Your task to perform on an android device: Open settings on Google Maps Image 0: 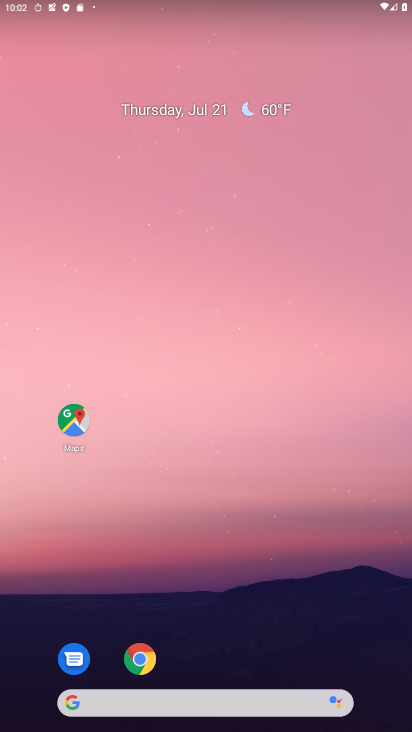
Step 0: press home button
Your task to perform on an android device: Open settings on Google Maps Image 1: 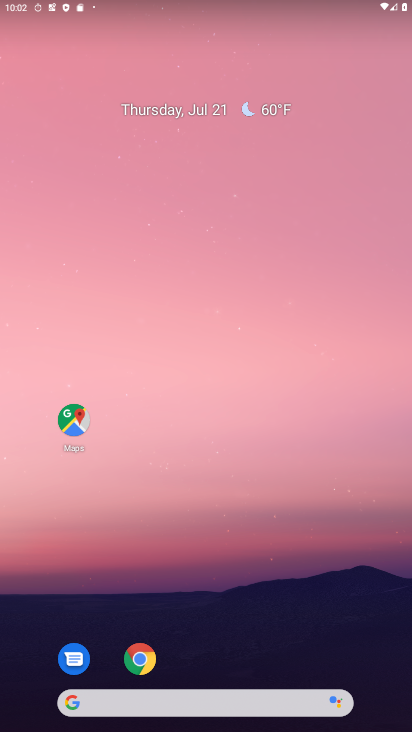
Step 1: click (62, 415)
Your task to perform on an android device: Open settings on Google Maps Image 2: 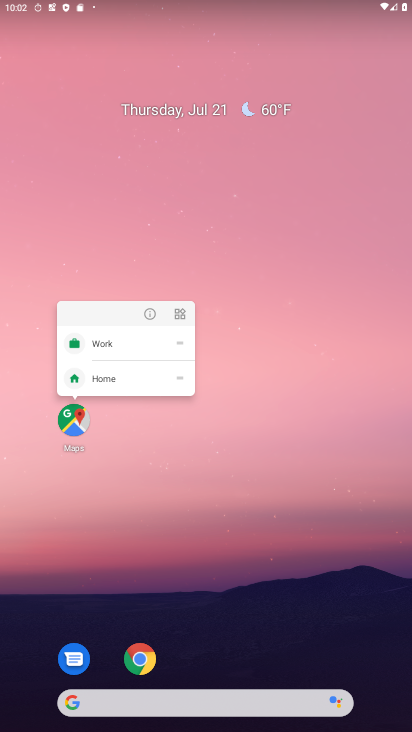
Step 2: click (78, 422)
Your task to perform on an android device: Open settings on Google Maps Image 3: 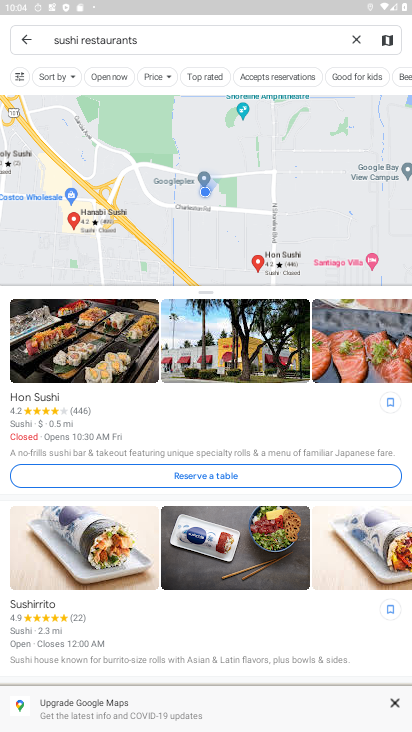
Step 3: click (17, 35)
Your task to perform on an android device: Open settings on Google Maps Image 4: 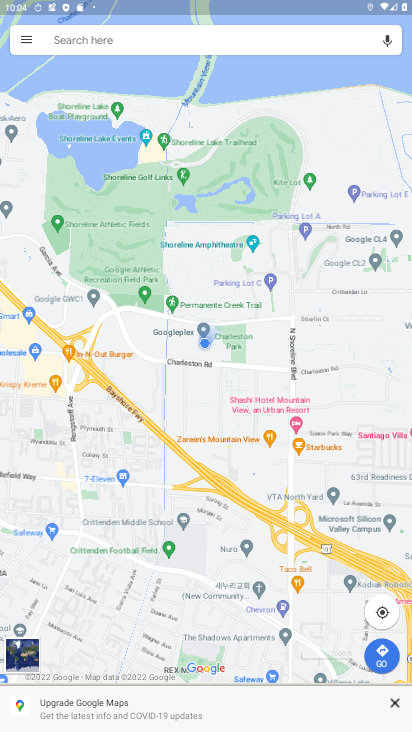
Step 4: click (21, 39)
Your task to perform on an android device: Open settings on Google Maps Image 5: 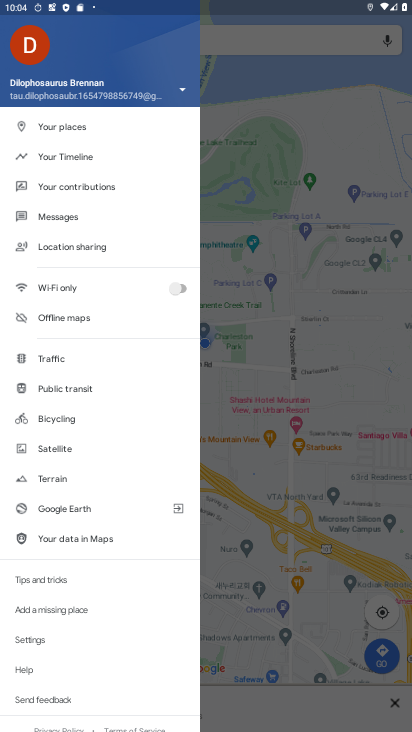
Step 5: click (39, 645)
Your task to perform on an android device: Open settings on Google Maps Image 6: 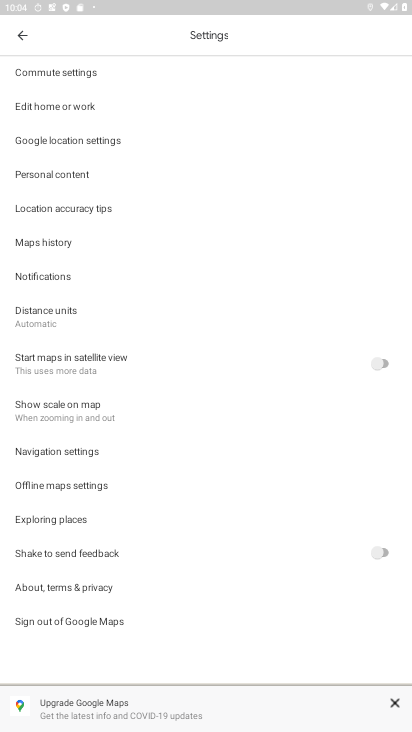
Step 6: task complete